Your task to perform on an android device: turn on javascript in the chrome app Image 0: 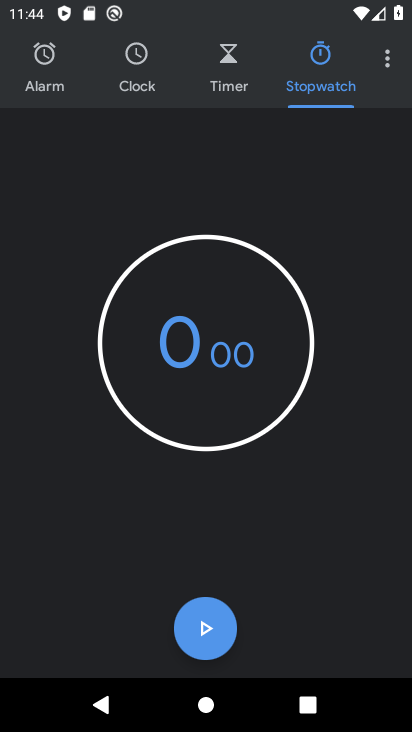
Step 0: press home button
Your task to perform on an android device: turn on javascript in the chrome app Image 1: 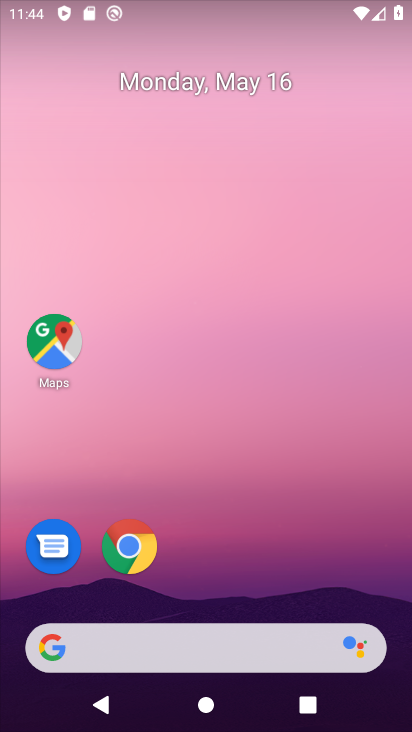
Step 1: click (131, 546)
Your task to perform on an android device: turn on javascript in the chrome app Image 2: 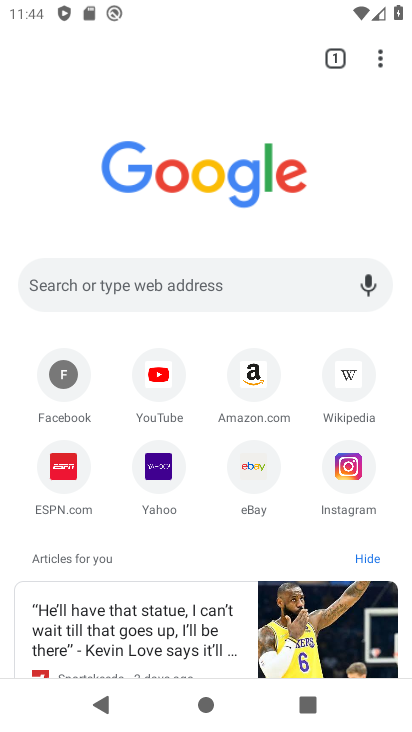
Step 2: click (376, 64)
Your task to perform on an android device: turn on javascript in the chrome app Image 3: 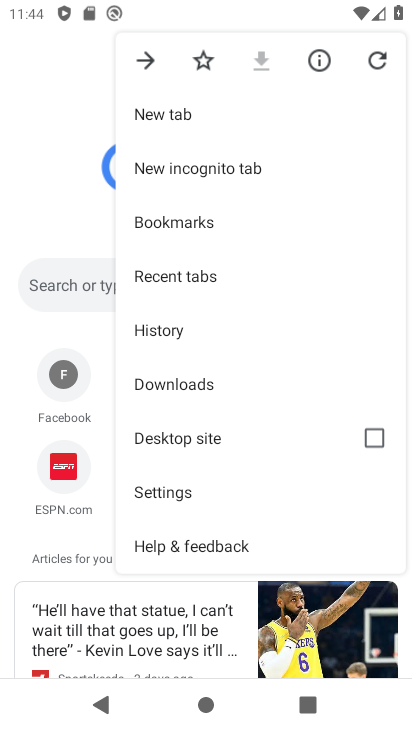
Step 3: click (182, 484)
Your task to perform on an android device: turn on javascript in the chrome app Image 4: 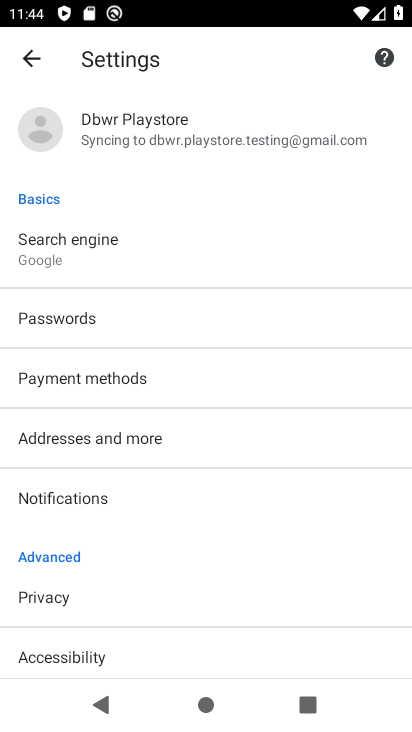
Step 4: drag from (190, 625) to (237, 228)
Your task to perform on an android device: turn on javascript in the chrome app Image 5: 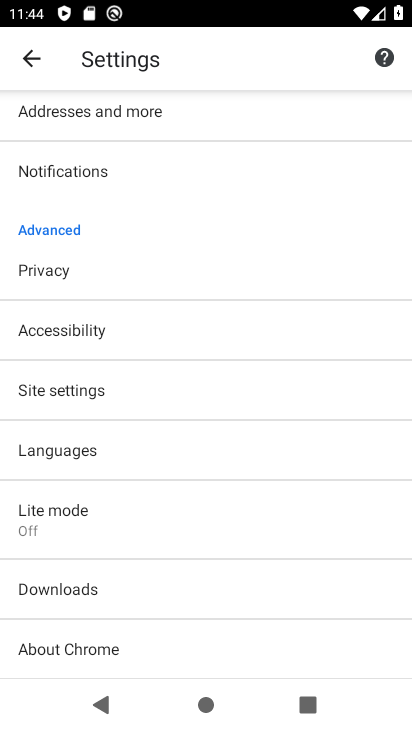
Step 5: click (65, 389)
Your task to perform on an android device: turn on javascript in the chrome app Image 6: 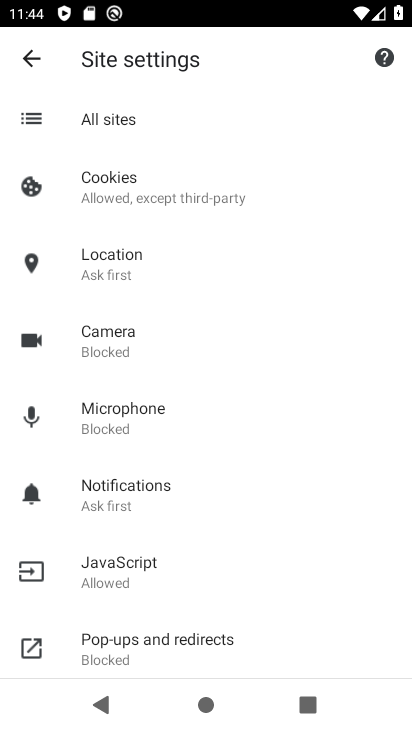
Step 6: click (114, 565)
Your task to perform on an android device: turn on javascript in the chrome app Image 7: 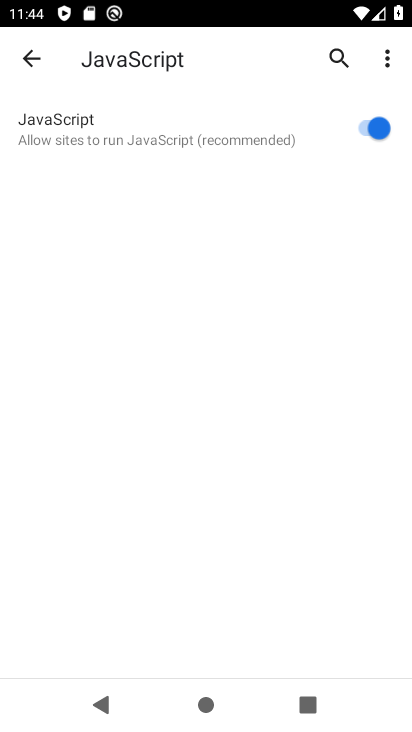
Step 7: task complete